Your task to perform on an android device: open device folders in google photos Image 0: 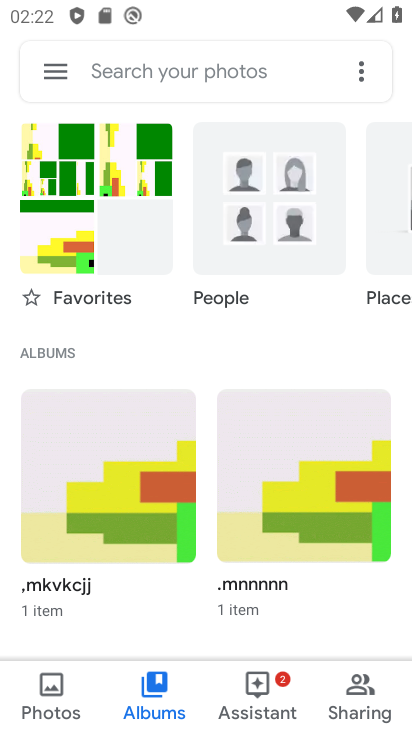
Step 0: press home button
Your task to perform on an android device: open device folders in google photos Image 1: 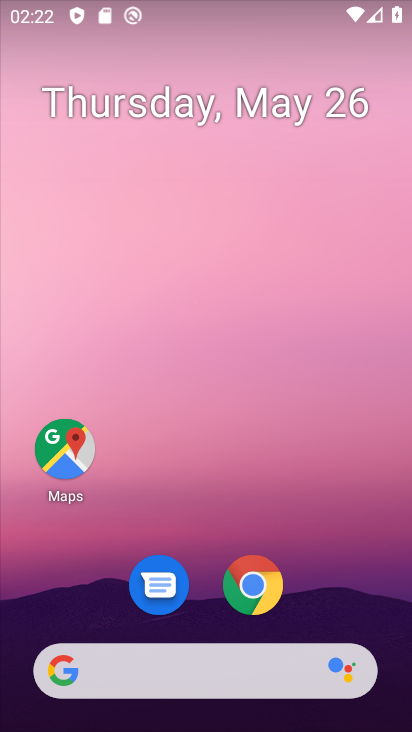
Step 1: drag from (219, 510) to (247, 62)
Your task to perform on an android device: open device folders in google photos Image 2: 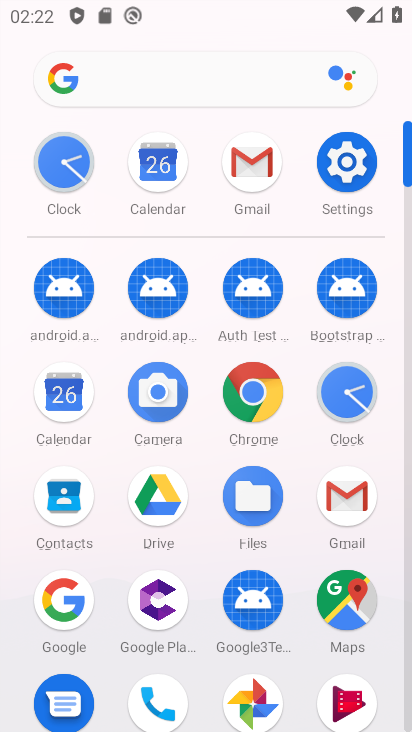
Step 2: click (270, 694)
Your task to perform on an android device: open device folders in google photos Image 3: 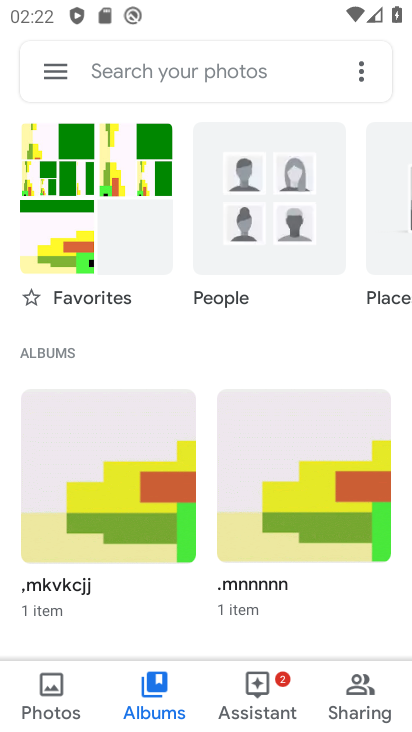
Step 3: click (57, 60)
Your task to perform on an android device: open device folders in google photos Image 4: 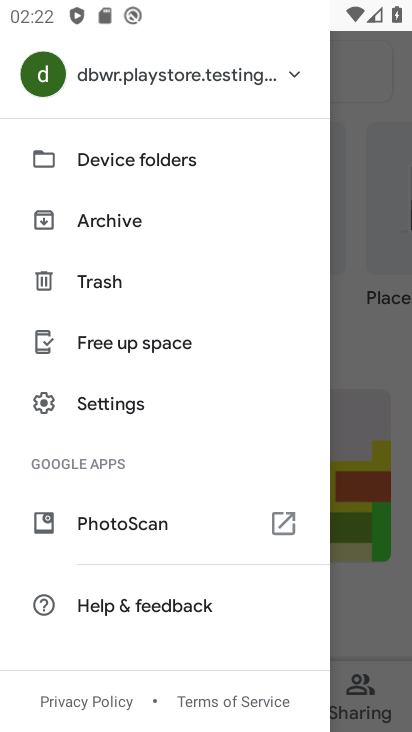
Step 4: click (100, 158)
Your task to perform on an android device: open device folders in google photos Image 5: 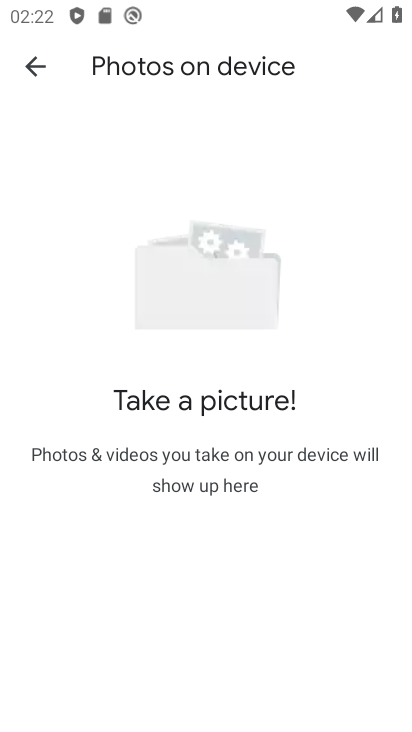
Step 5: task complete